Your task to perform on an android device: toggle airplane mode Image 0: 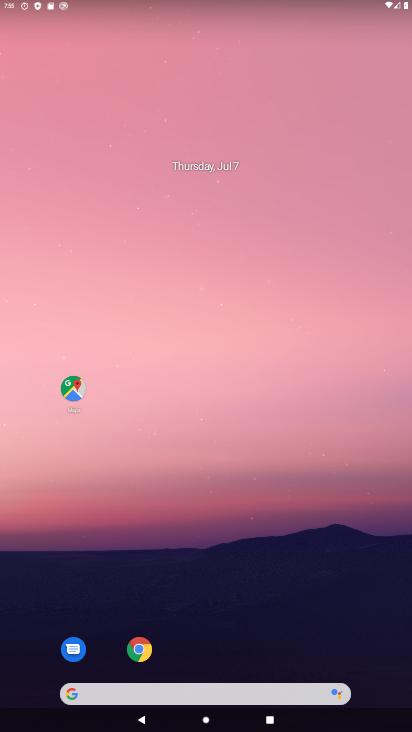
Step 0: drag from (215, 6) to (183, 474)
Your task to perform on an android device: toggle airplane mode Image 1: 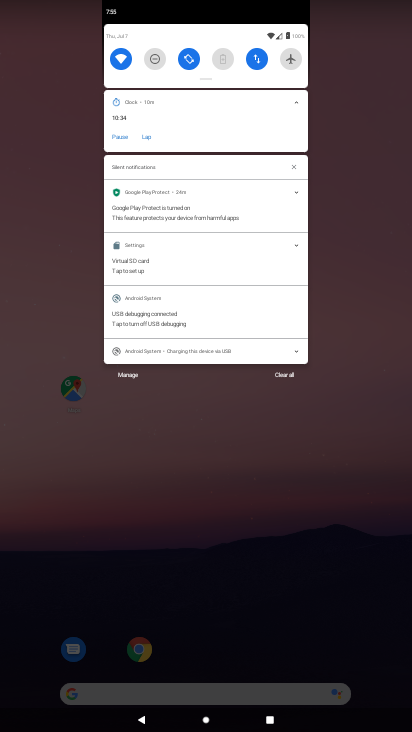
Step 1: click (291, 53)
Your task to perform on an android device: toggle airplane mode Image 2: 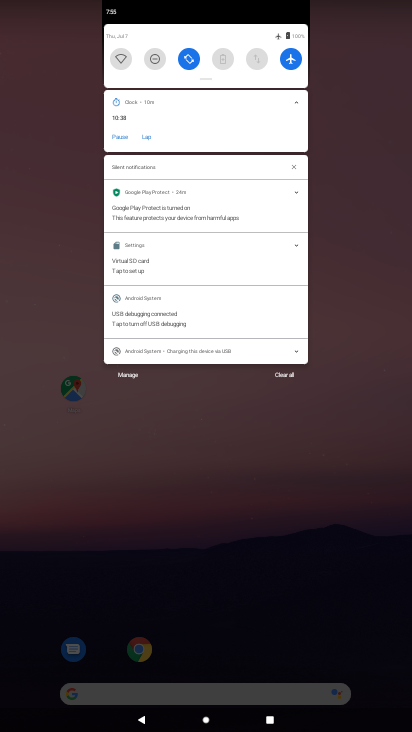
Step 2: task complete